Your task to perform on an android device: turn off location Image 0: 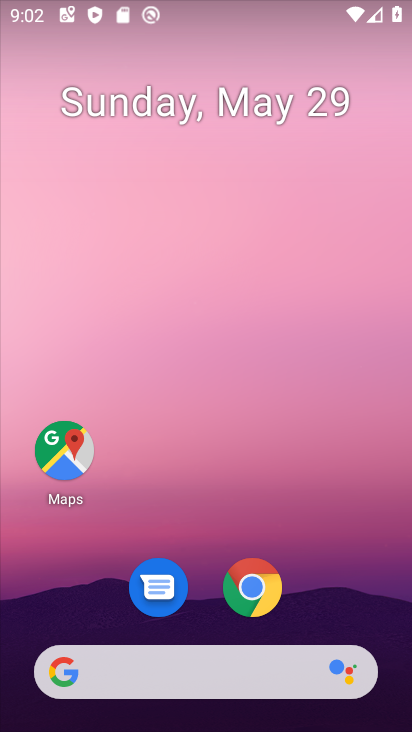
Step 0: drag from (324, 544) to (341, 112)
Your task to perform on an android device: turn off location Image 1: 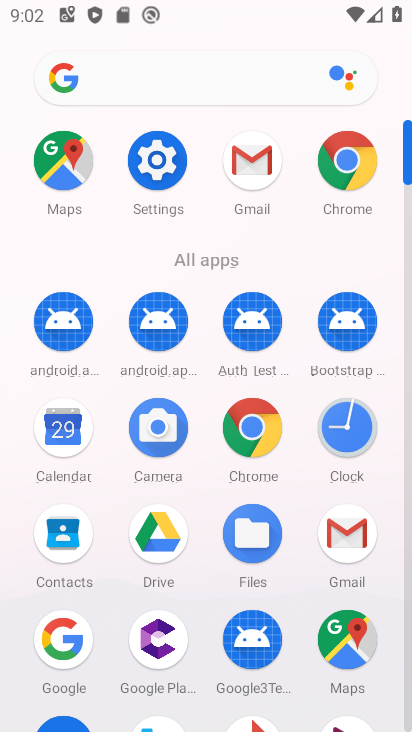
Step 1: click (155, 164)
Your task to perform on an android device: turn off location Image 2: 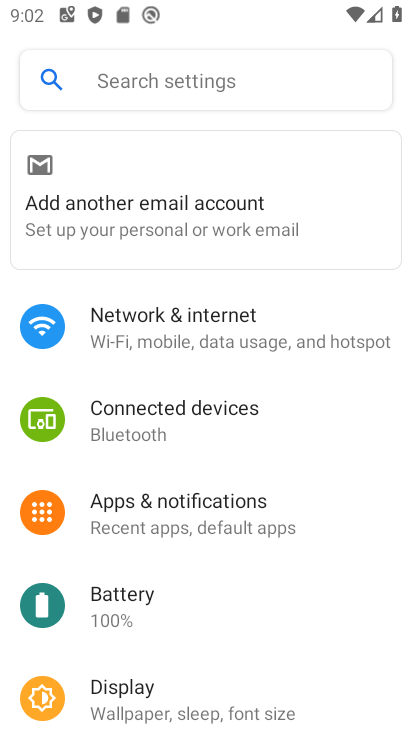
Step 2: drag from (119, 644) to (217, 209)
Your task to perform on an android device: turn off location Image 3: 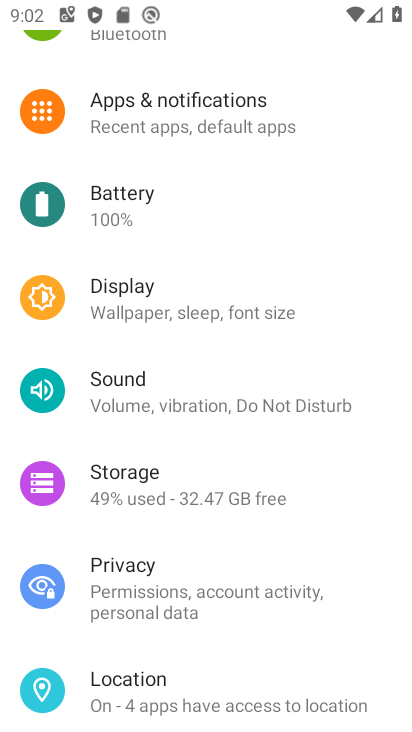
Step 3: click (158, 676)
Your task to perform on an android device: turn off location Image 4: 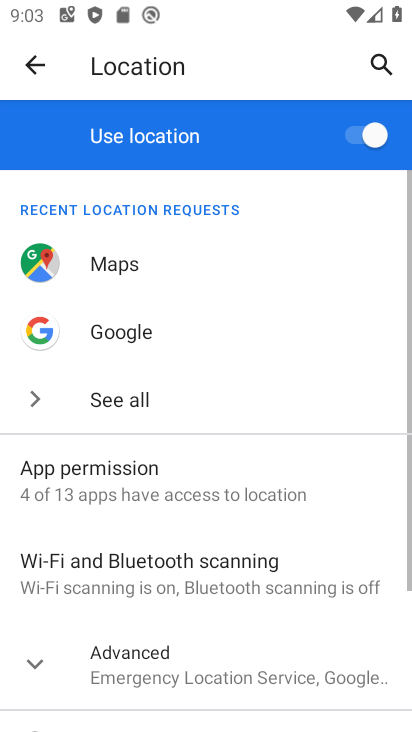
Step 4: click (374, 134)
Your task to perform on an android device: turn off location Image 5: 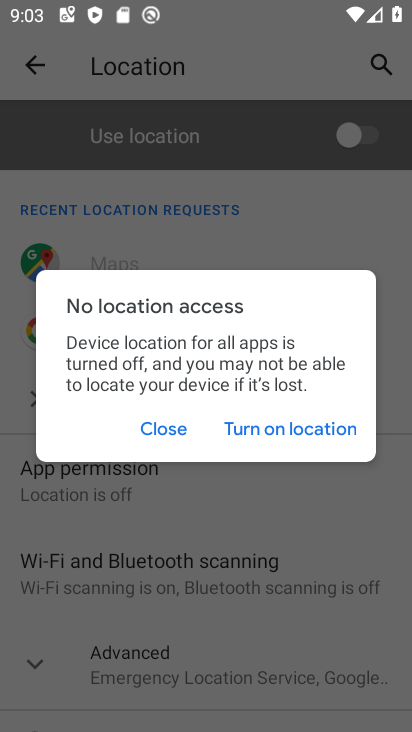
Step 5: click (151, 420)
Your task to perform on an android device: turn off location Image 6: 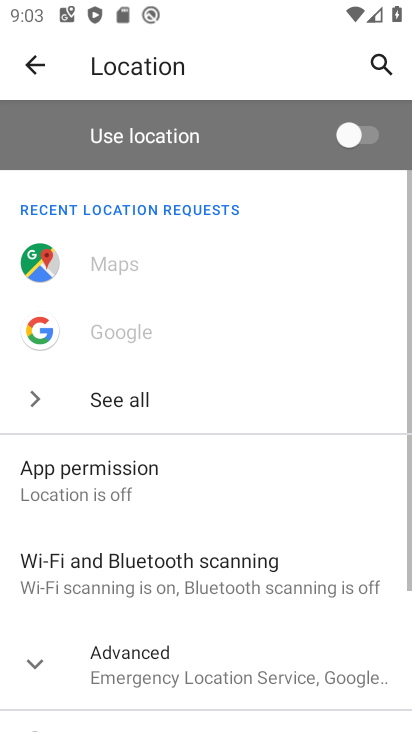
Step 6: task complete